Your task to perform on an android device: Open Wikipedia Image 0: 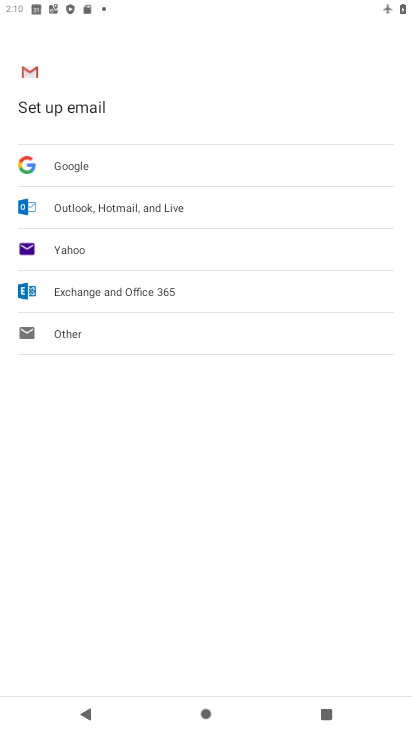
Step 0: press home button
Your task to perform on an android device: Open Wikipedia Image 1: 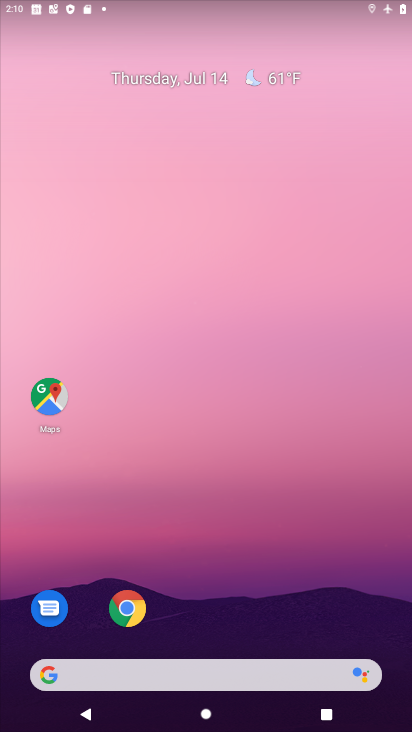
Step 1: click (129, 606)
Your task to perform on an android device: Open Wikipedia Image 2: 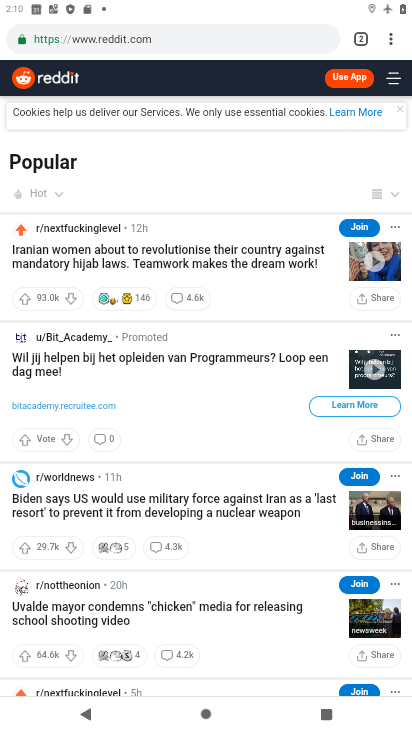
Step 2: click (241, 38)
Your task to perform on an android device: Open Wikipedia Image 3: 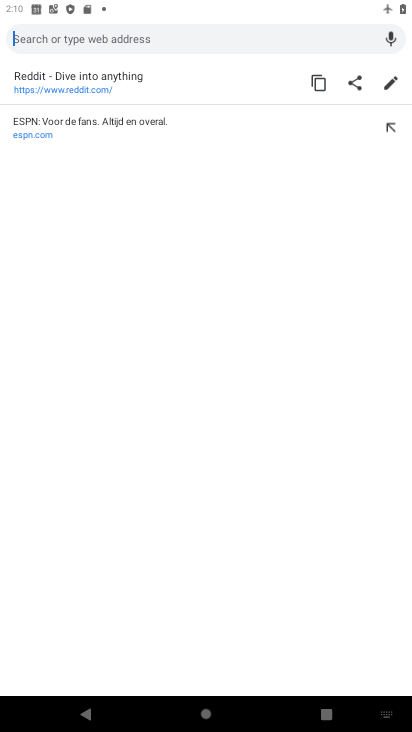
Step 3: type "Wikipedia"
Your task to perform on an android device: Open Wikipedia Image 4: 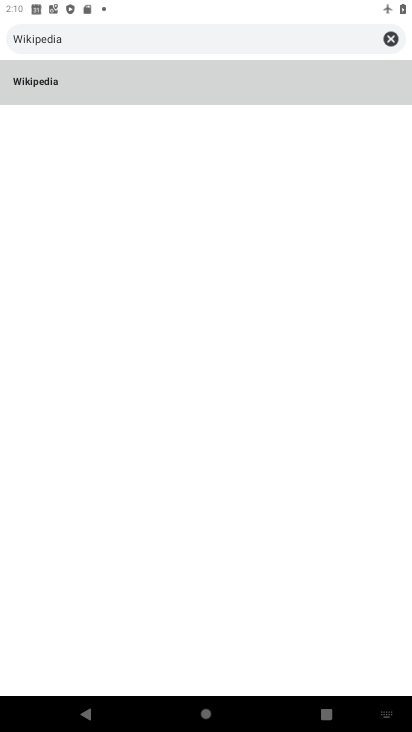
Step 4: click (49, 85)
Your task to perform on an android device: Open Wikipedia Image 5: 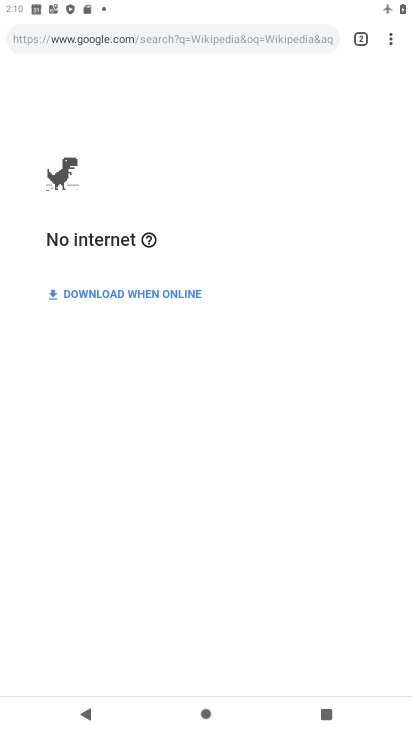
Step 5: task complete